Your task to perform on an android device: Show me the alarms in the clock app Image 0: 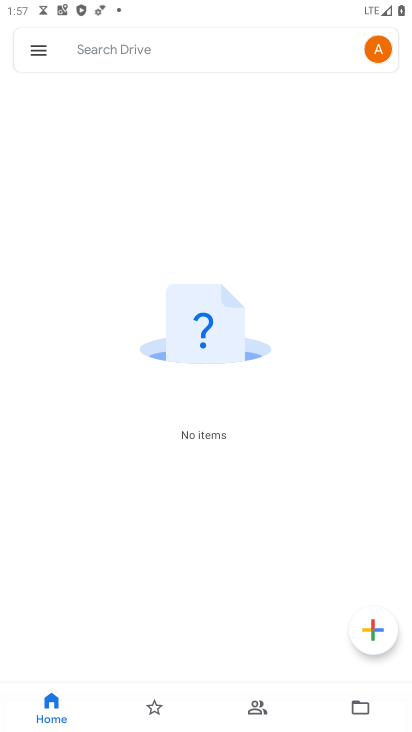
Step 0: press home button
Your task to perform on an android device: Show me the alarms in the clock app Image 1: 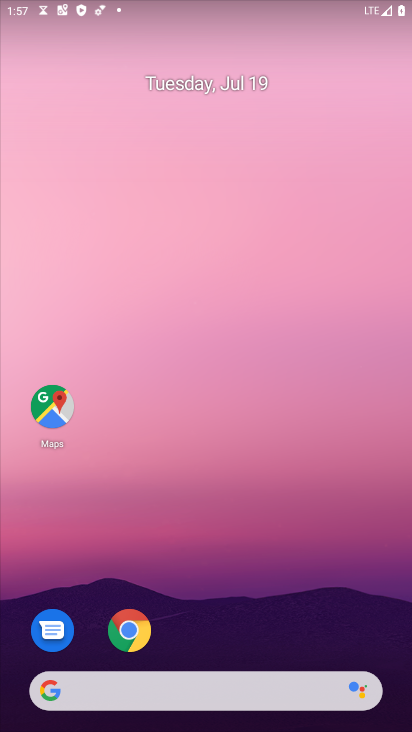
Step 1: click (279, 137)
Your task to perform on an android device: Show me the alarms in the clock app Image 2: 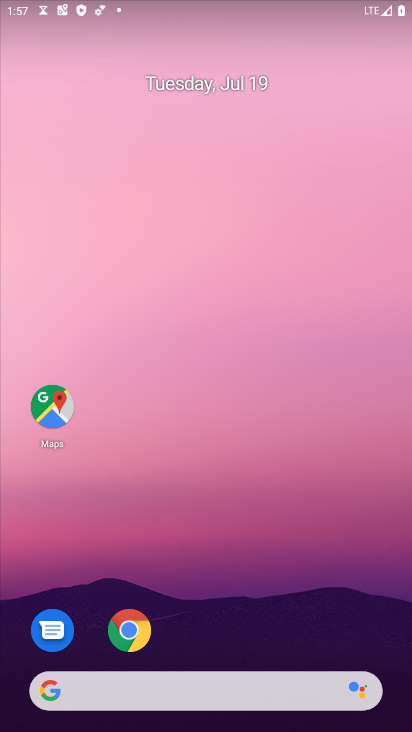
Step 2: drag from (234, 648) to (257, 160)
Your task to perform on an android device: Show me the alarms in the clock app Image 3: 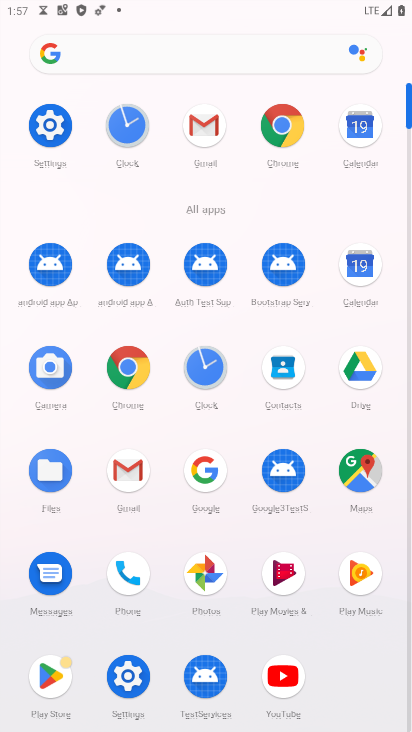
Step 3: click (126, 114)
Your task to perform on an android device: Show me the alarms in the clock app Image 4: 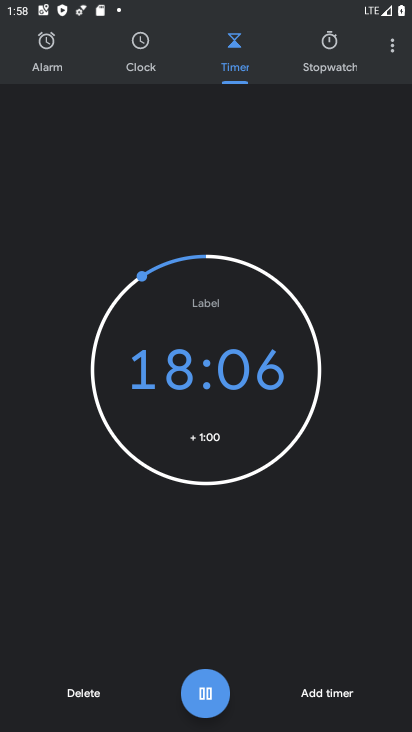
Step 4: click (79, 693)
Your task to perform on an android device: Show me the alarms in the clock app Image 5: 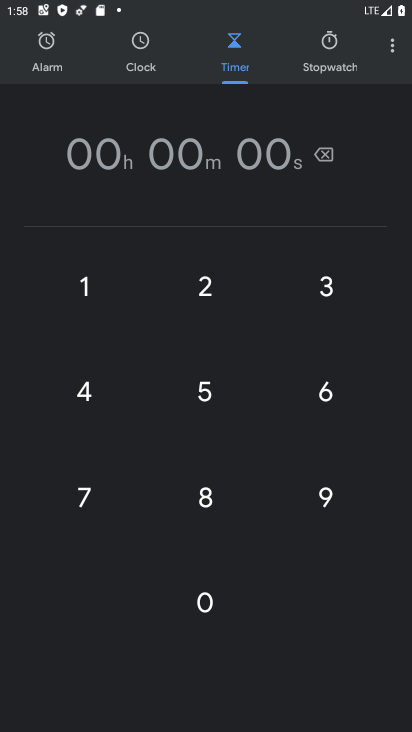
Step 5: click (46, 37)
Your task to perform on an android device: Show me the alarms in the clock app Image 6: 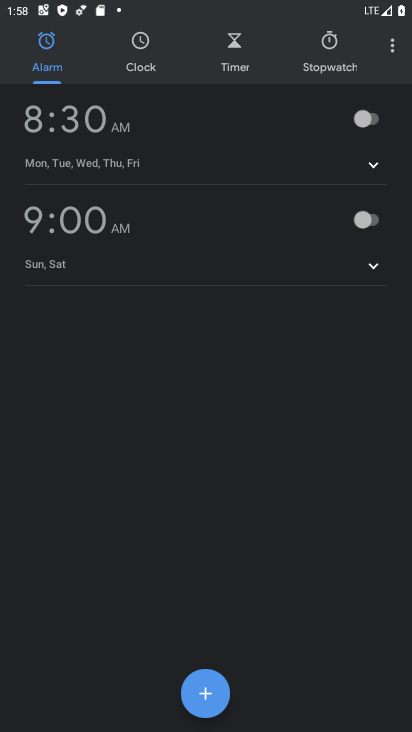
Step 6: click (365, 111)
Your task to perform on an android device: Show me the alarms in the clock app Image 7: 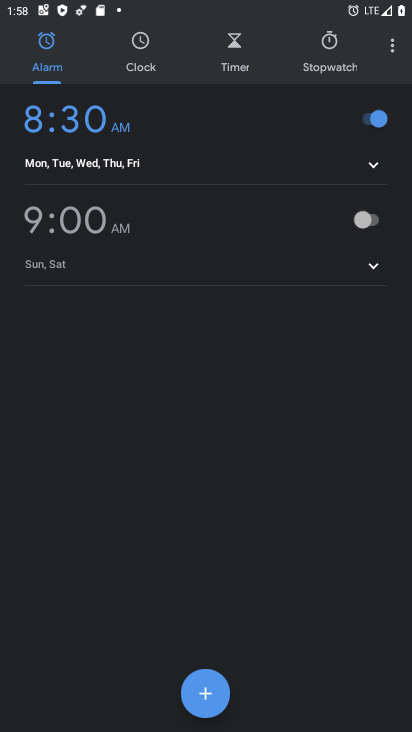
Step 7: task complete